Your task to perform on an android device: all mails in gmail Image 0: 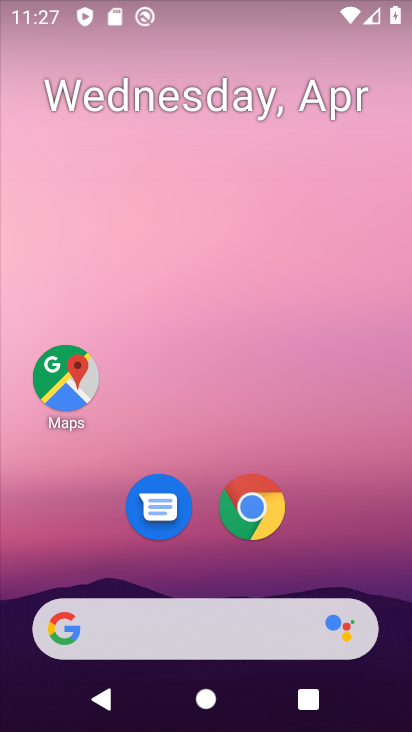
Step 0: drag from (331, 411) to (300, 37)
Your task to perform on an android device: all mails in gmail Image 1: 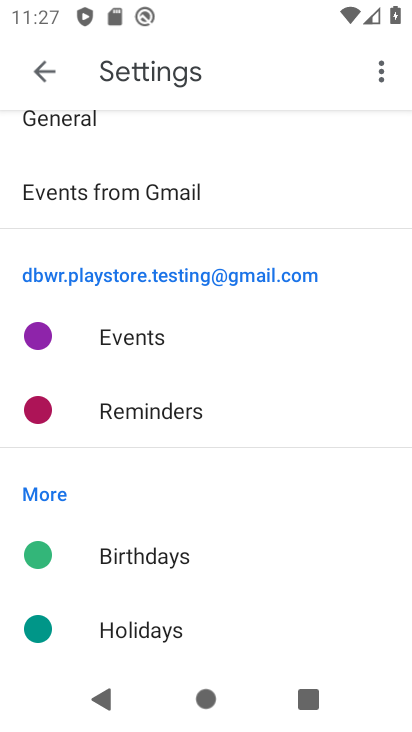
Step 1: press home button
Your task to perform on an android device: all mails in gmail Image 2: 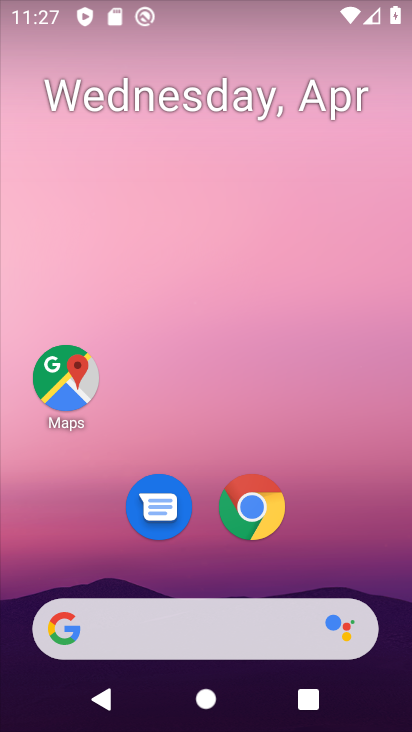
Step 2: drag from (346, 554) to (327, 95)
Your task to perform on an android device: all mails in gmail Image 3: 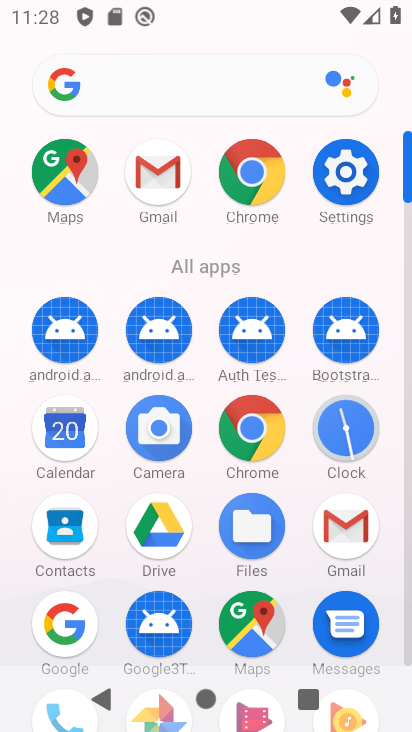
Step 3: click (330, 537)
Your task to perform on an android device: all mails in gmail Image 4: 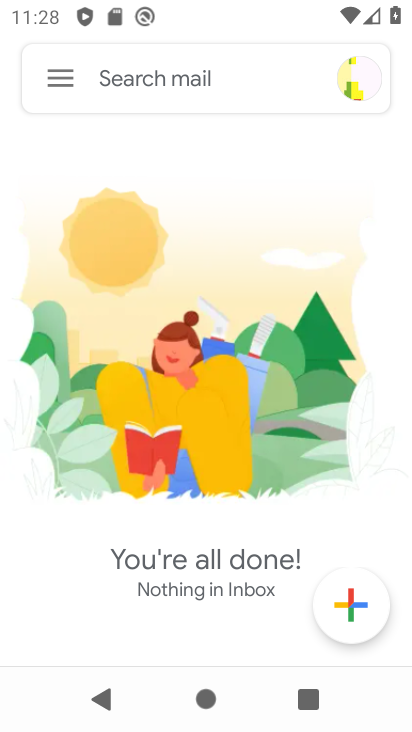
Step 4: click (68, 88)
Your task to perform on an android device: all mails in gmail Image 5: 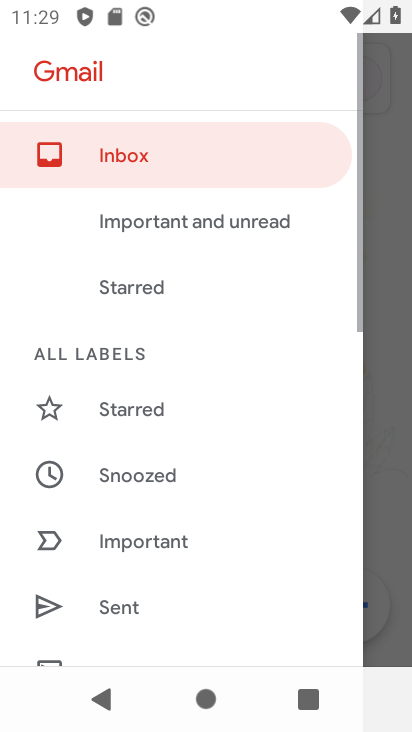
Step 5: drag from (137, 576) to (198, 85)
Your task to perform on an android device: all mails in gmail Image 6: 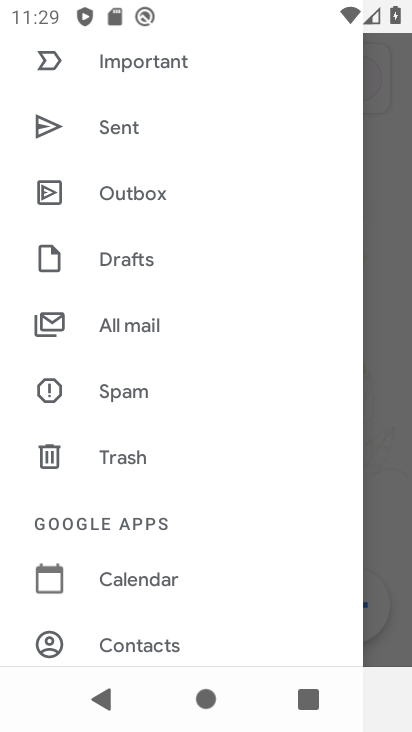
Step 6: click (150, 333)
Your task to perform on an android device: all mails in gmail Image 7: 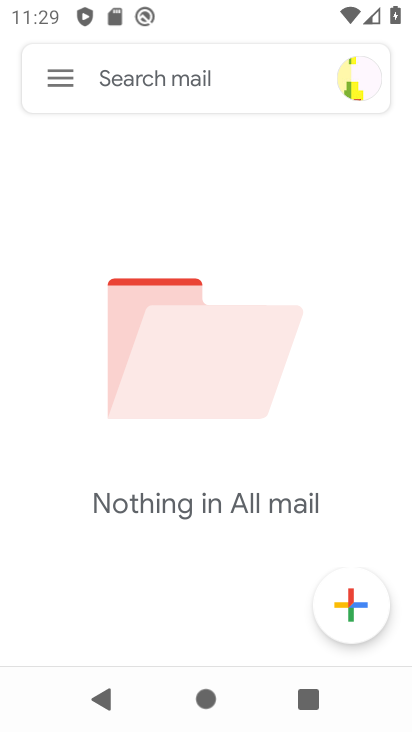
Step 7: task complete